Your task to perform on an android device: Search for Mexican restaurants on Maps Image 0: 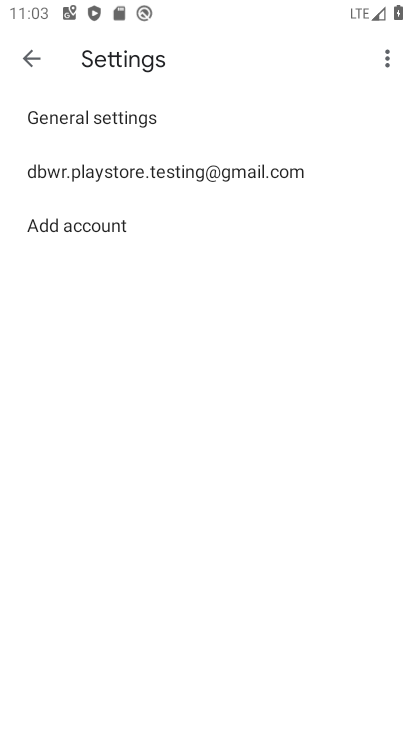
Step 0: press home button
Your task to perform on an android device: Search for Mexican restaurants on Maps Image 1: 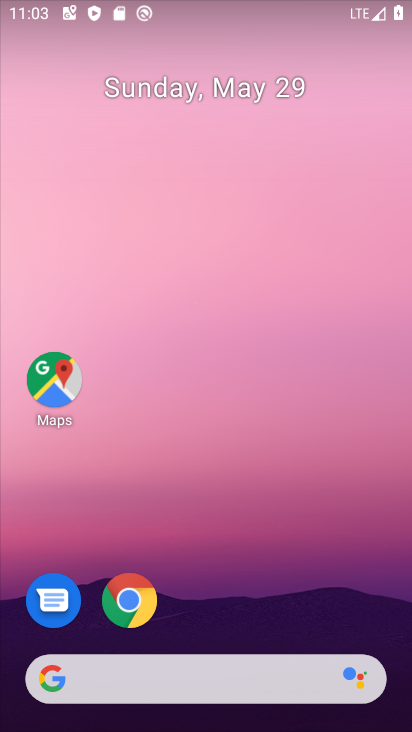
Step 1: click (121, 727)
Your task to perform on an android device: Search for Mexican restaurants on Maps Image 2: 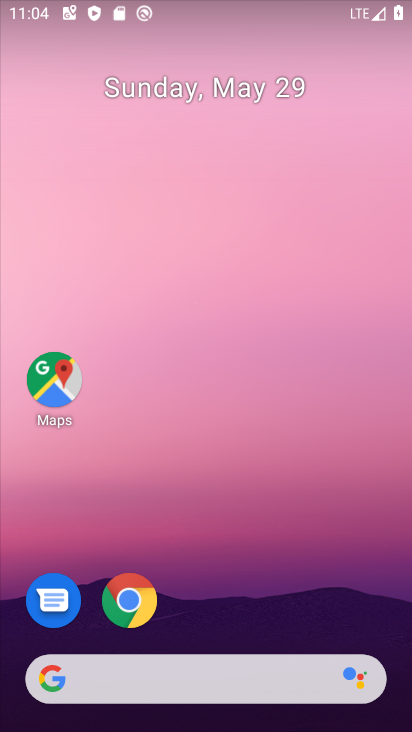
Step 2: click (47, 407)
Your task to perform on an android device: Search for Mexican restaurants on Maps Image 3: 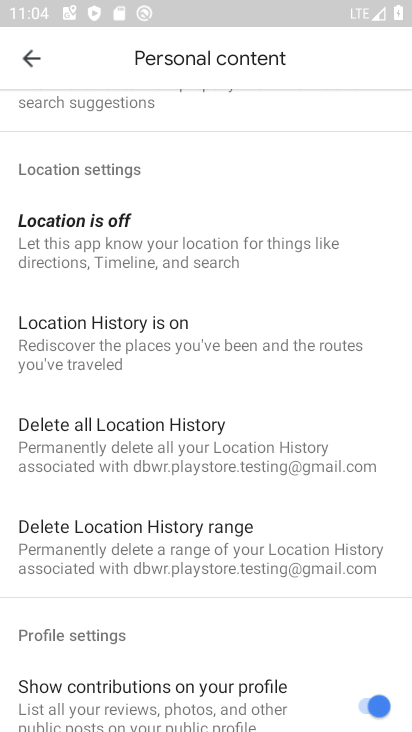
Step 3: click (22, 55)
Your task to perform on an android device: Search for Mexican restaurants on Maps Image 4: 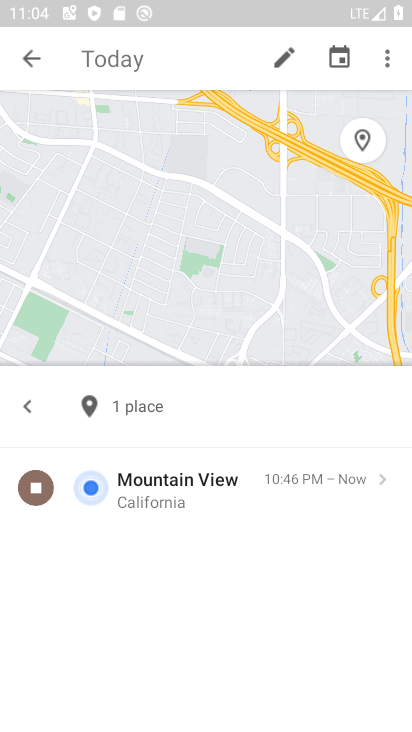
Step 4: click (32, 52)
Your task to perform on an android device: Search for Mexican restaurants on Maps Image 5: 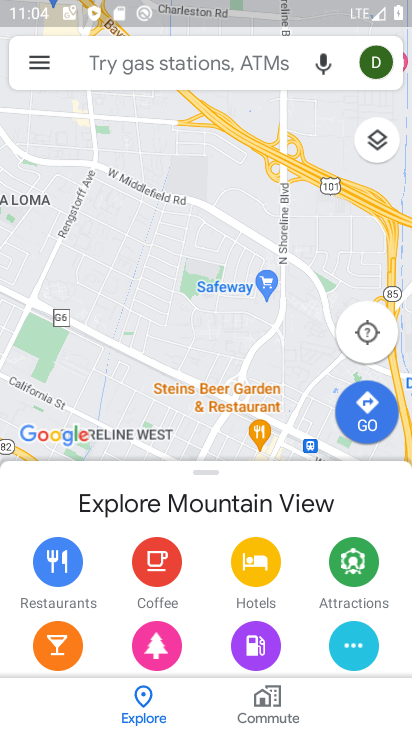
Step 5: click (116, 61)
Your task to perform on an android device: Search for Mexican restaurants on Maps Image 6: 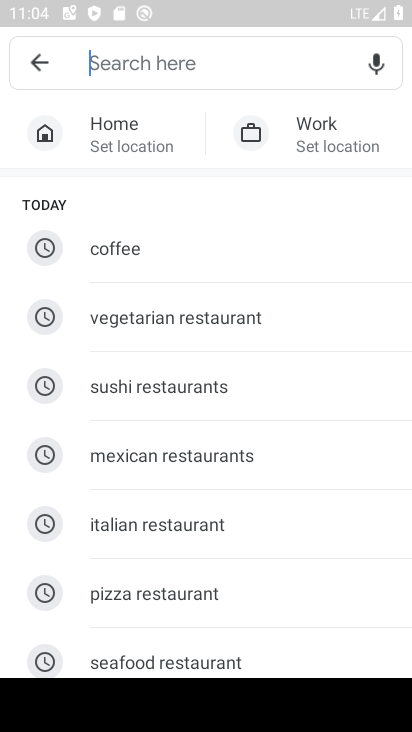
Step 6: click (116, 61)
Your task to perform on an android device: Search for Mexican restaurants on Maps Image 7: 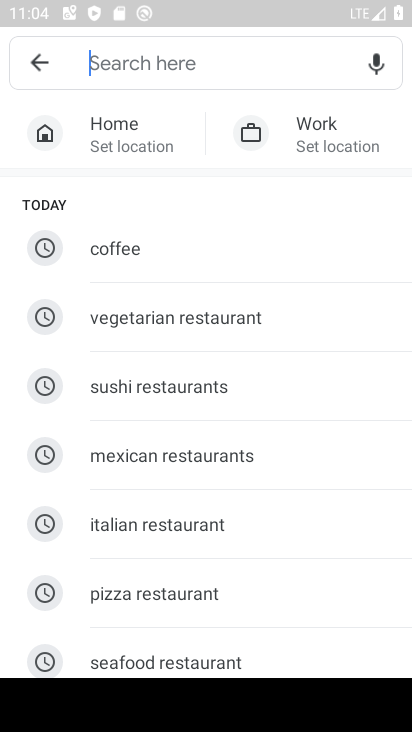
Step 7: type " Mexican restaurants "
Your task to perform on an android device: Search for Mexican restaurants on Maps Image 8: 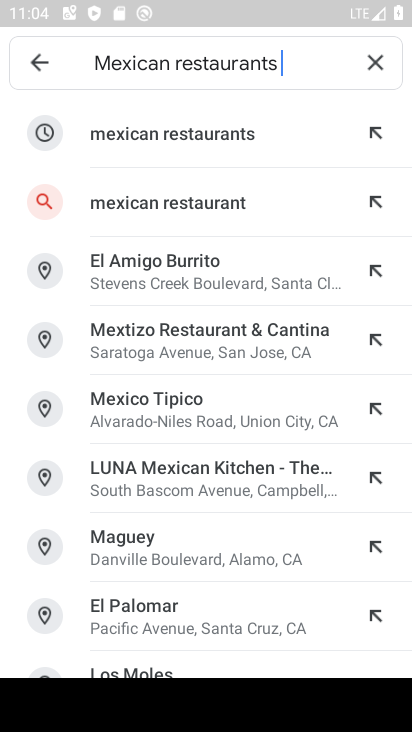
Step 8: click (147, 136)
Your task to perform on an android device: Search for Mexican restaurants on Maps Image 9: 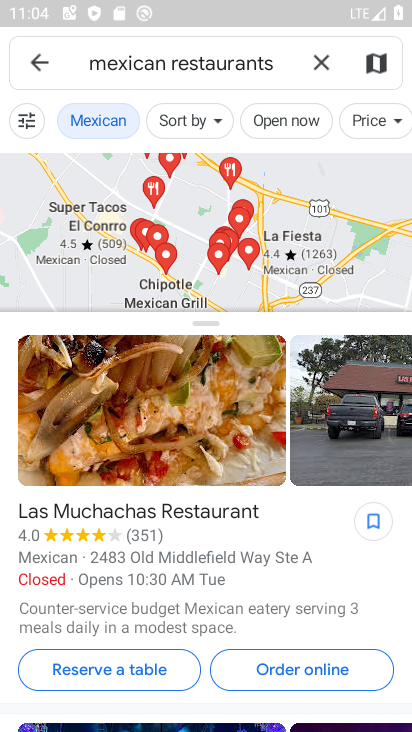
Step 9: task complete